Your task to perform on an android device: set the stopwatch Image 0: 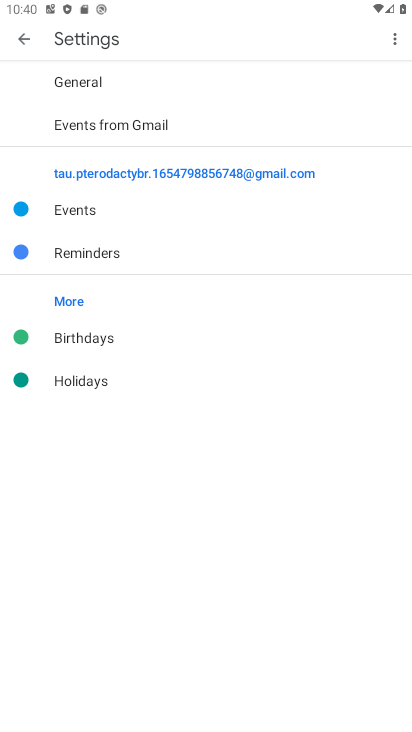
Step 0: press home button
Your task to perform on an android device: set the stopwatch Image 1: 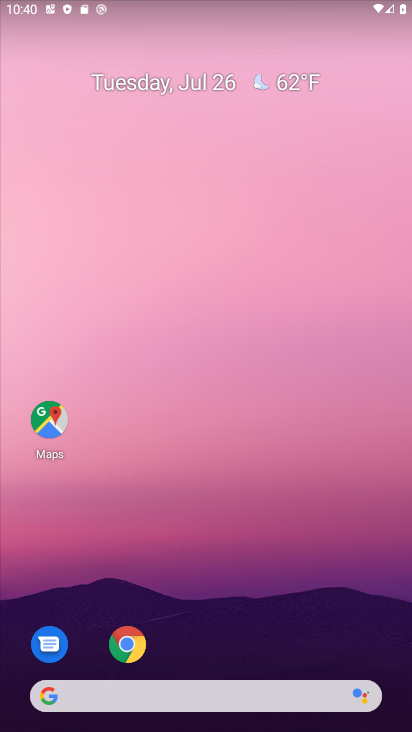
Step 1: drag from (263, 606) to (219, 245)
Your task to perform on an android device: set the stopwatch Image 2: 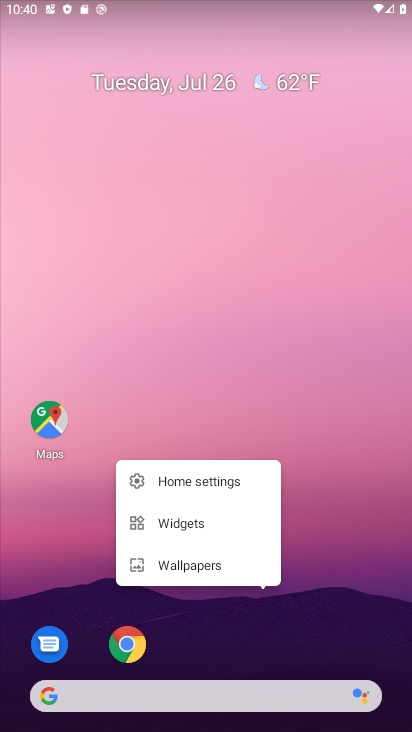
Step 2: click (369, 475)
Your task to perform on an android device: set the stopwatch Image 3: 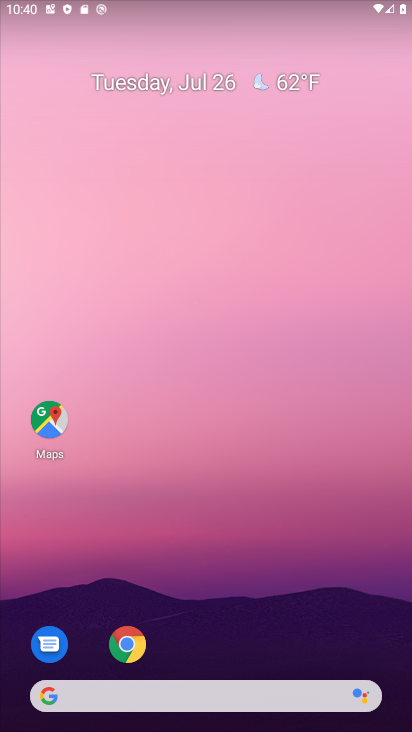
Step 3: drag from (383, 538) to (320, 112)
Your task to perform on an android device: set the stopwatch Image 4: 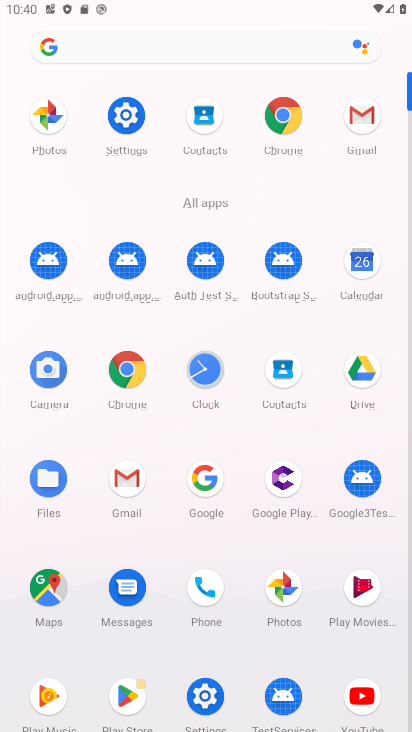
Step 4: click (207, 373)
Your task to perform on an android device: set the stopwatch Image 5: 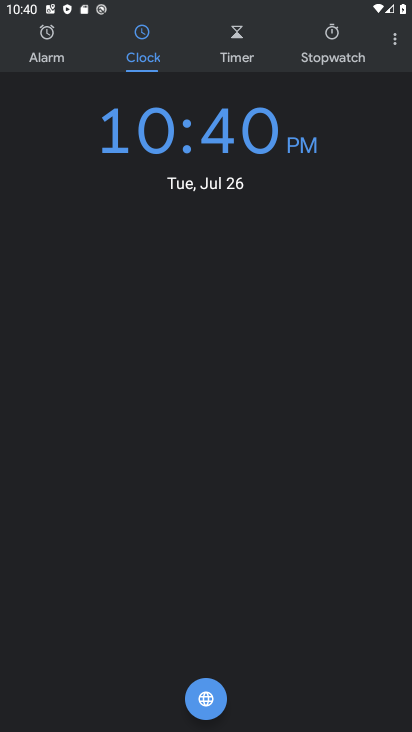
Step 5: click (327, 49)
Your task to perform on an android device: set the stopwatch Image 6: 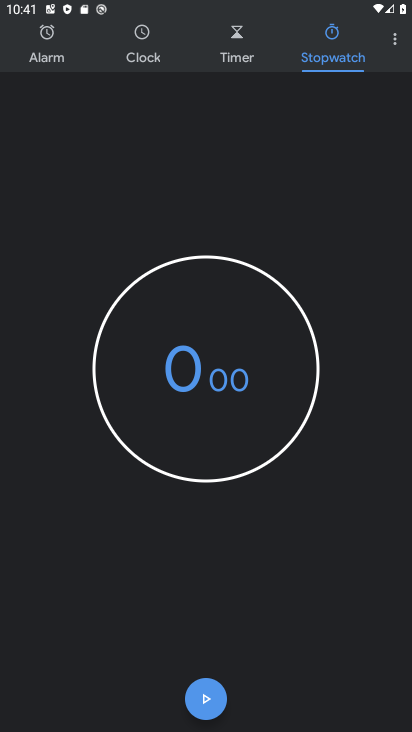
Step 6: task complete